Your task to perform on an android device: Install the Yelp app Image 0: 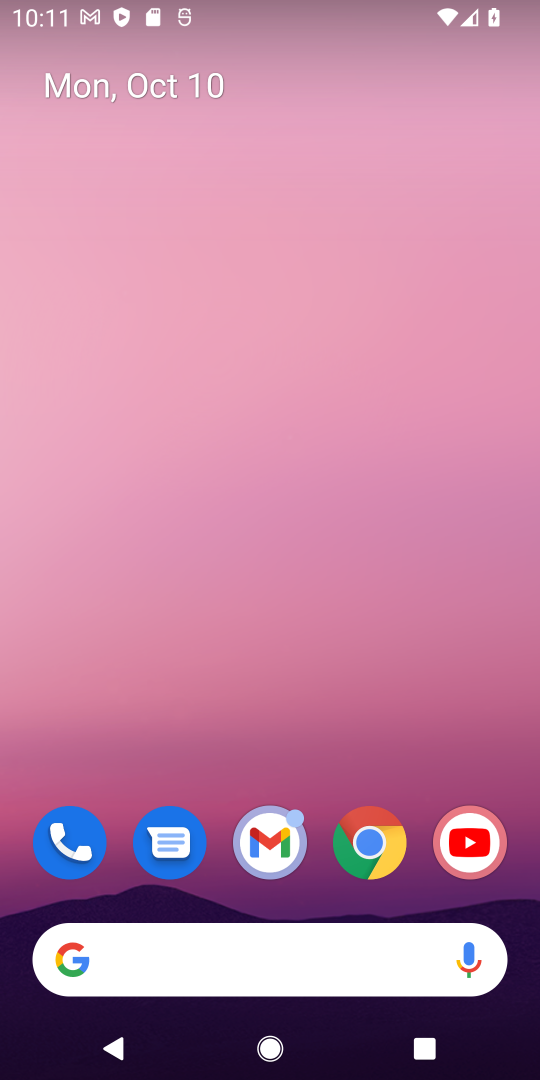
Step 0: drag from (486, 696) to (479, 70)
Your task to perform on an android device: Install the Yelp app Image 1: 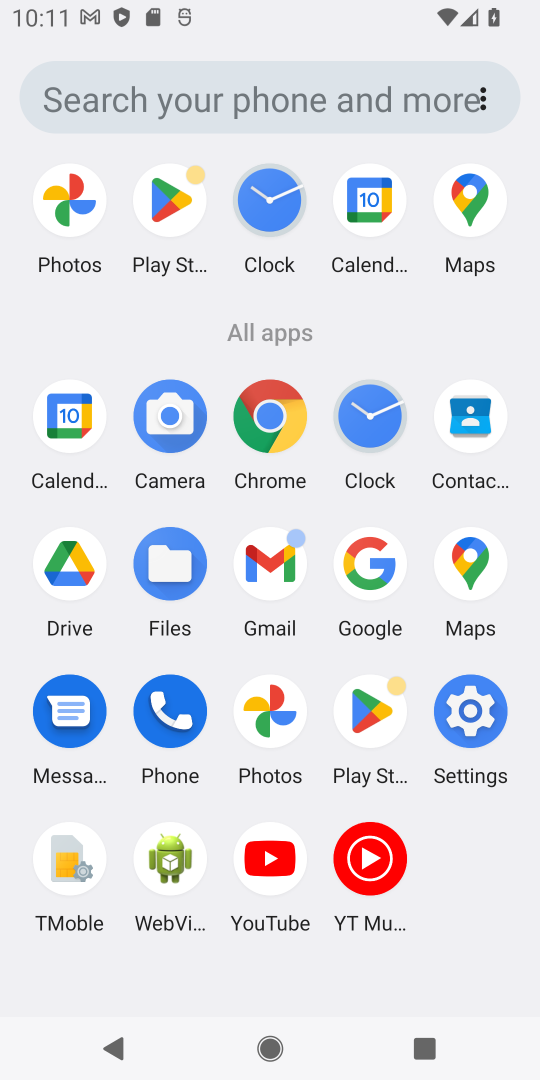
Step 1: click (168, 210)
Your task to perform on an android device: Install the Yelp app Image 2: 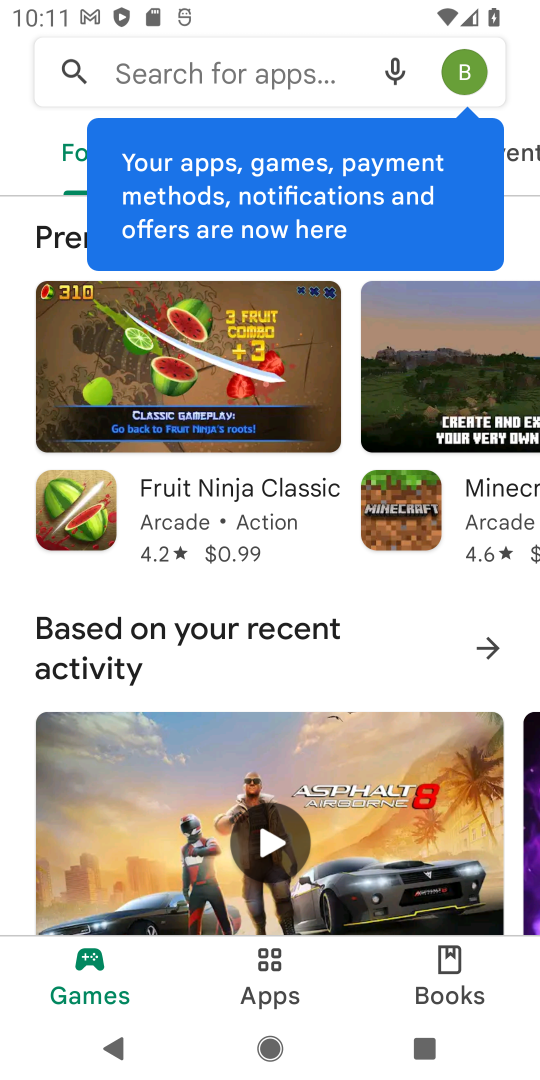
Step 2: click (187, 77)
Your task to perform on an android device: Install the Yelp app Image 3: 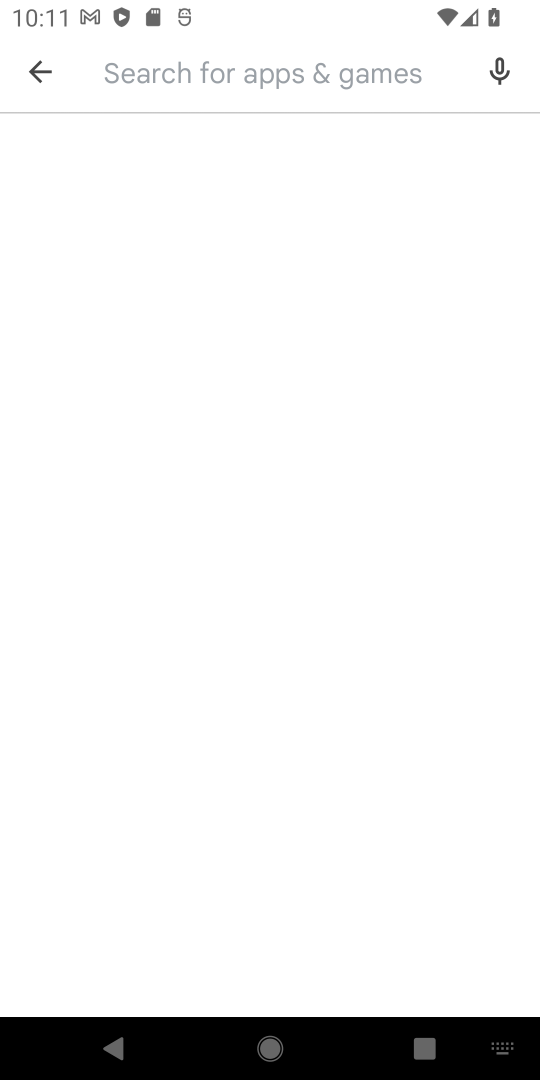
Step 3: type "yelp app"
Your task to perform on an android device: Install the Yelp app Image 4: 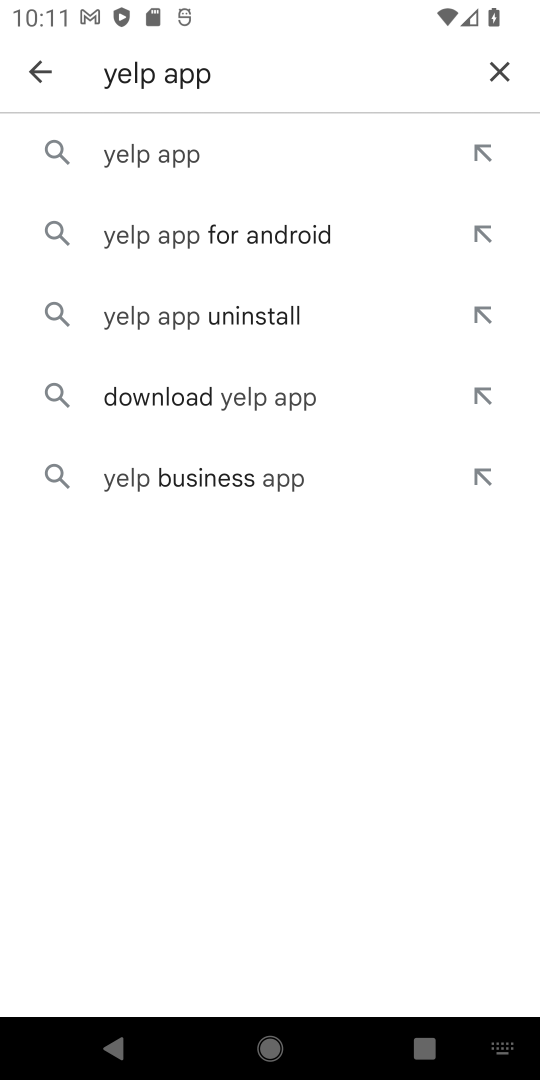
Step 4: click (178, 249)
Your task to perform on an android device: Install the Yelp app Image 5: 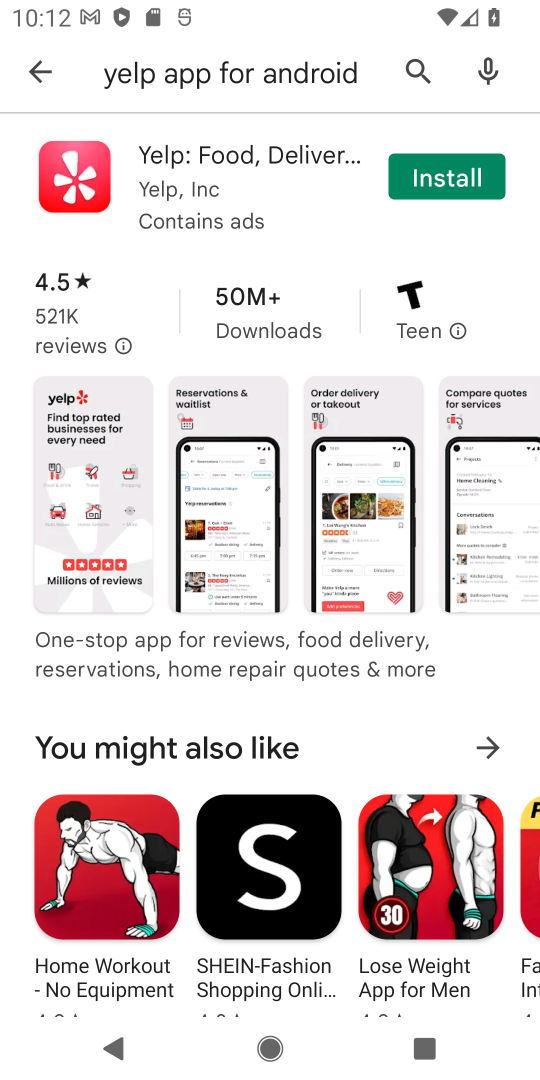
Step 5: click (446, 175)
Your task to perform on an android device: Install the Yelp app Image 6: 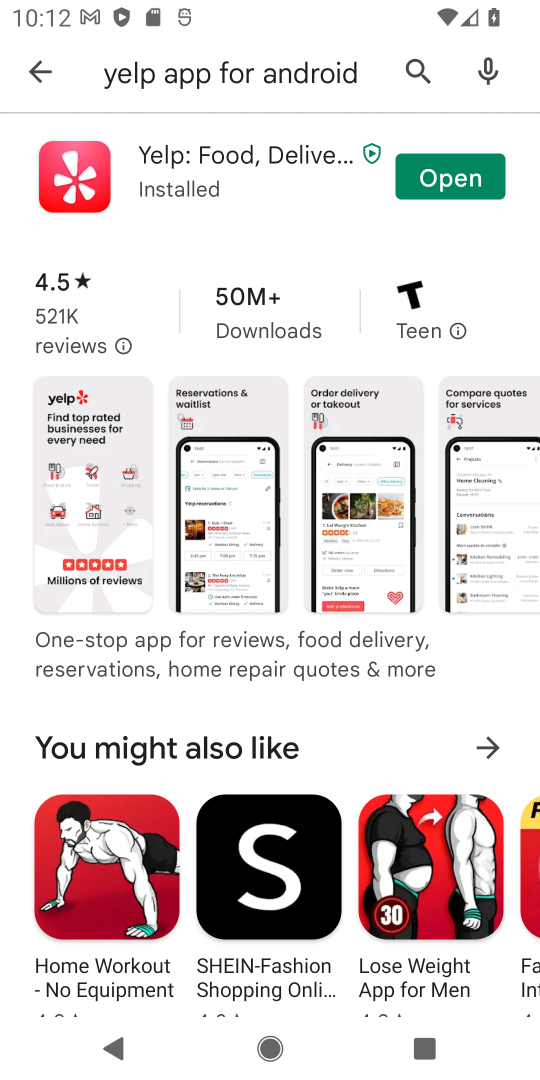
Step 6: task complete